Your task to perform on an android device: turn off priority inbox in the gmail app Image 0: 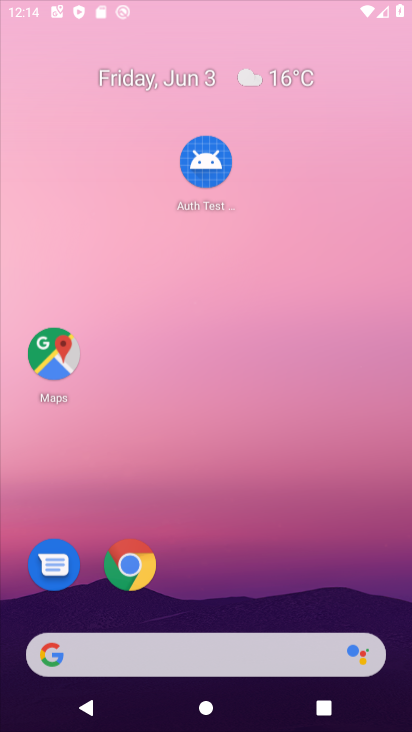
Step 0: drag from (195, 586) to (251, 39)
Your task to perform on an android device: turn off priority inbox in the gmail app Image 1: 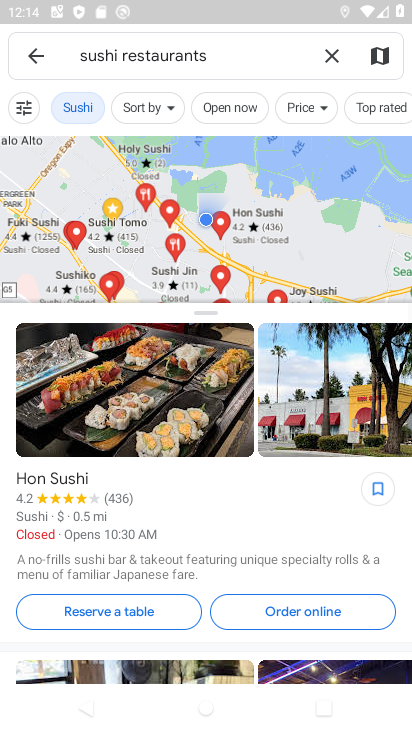
Step 1: press home button
Your task to perform on an android device: turn off priority inbox in the gmail app Image 2: 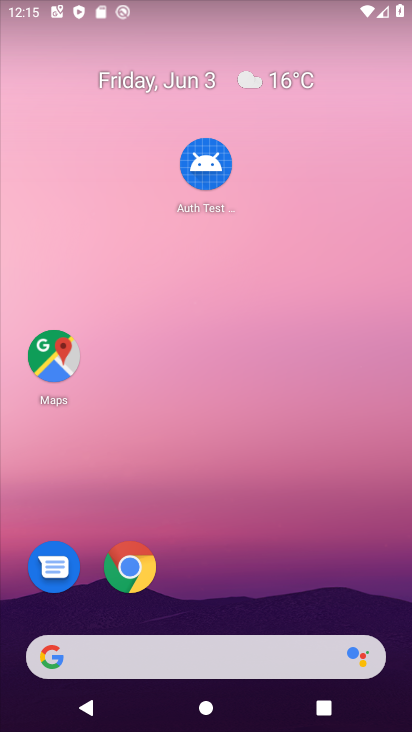
Step 2: drag from (217, 310) to (253, 63)
Your task to perform on an android device: turn off priority inbox in the gmail app Image 3: 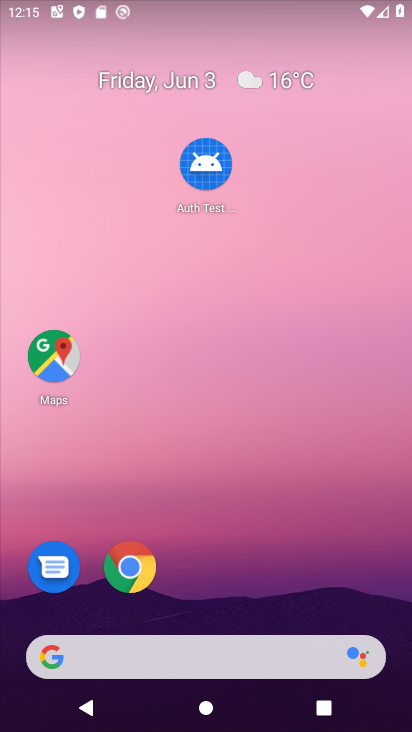
Step 3: drag from (210, 615) to (213, 68)
Your task to perform on an android device: turn off priority inbox in the gmail app Image 4: 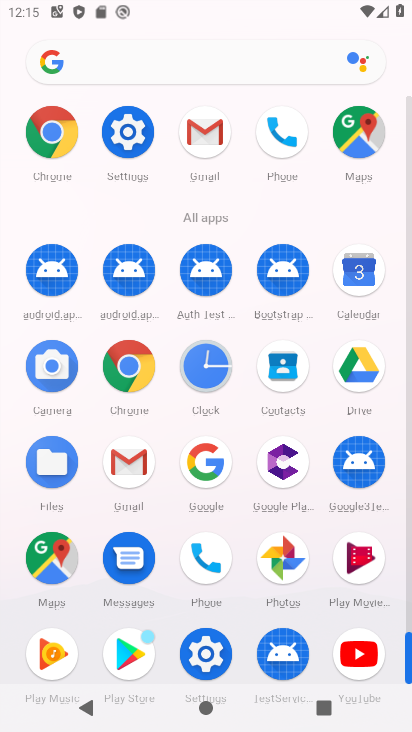
Step 4: click (192, 111)
Your task to perform on an android device: turn off priority inbox in the gmail app Image 5: 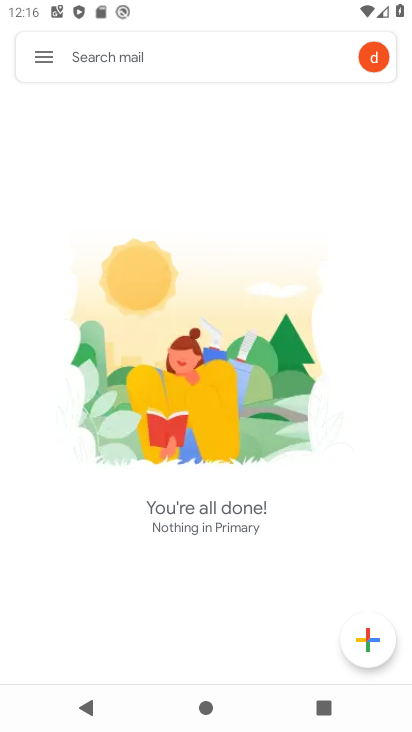
Step 5: click (47, 52)
Your task to perform on an android device: turn off priority inbox in the gmail app Image 6: 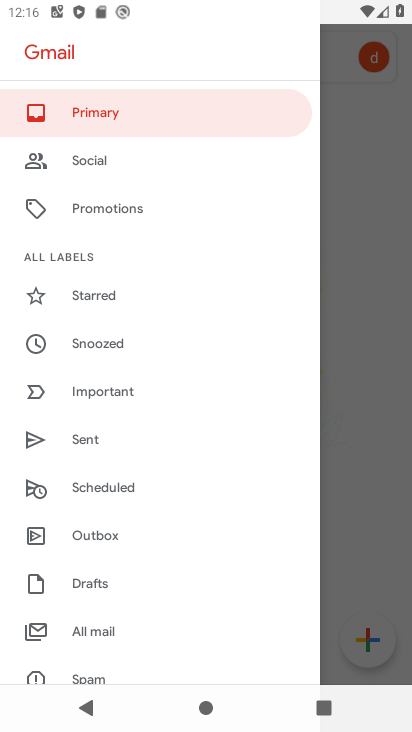
Step 6: drag from (94, 624) to (232, 195)
Your task to perform on an android device: turn off priority inbox in the gmail app Image 7: 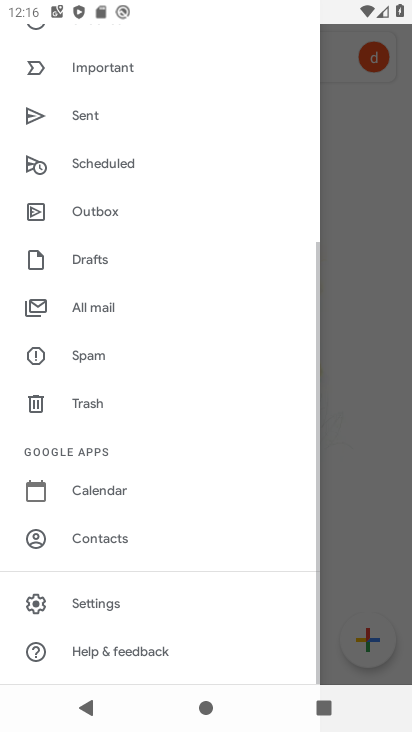
Step 7: click (112, 612)
Your task to perform on an android device: turn off priority inbox in the gmail app Image 8: 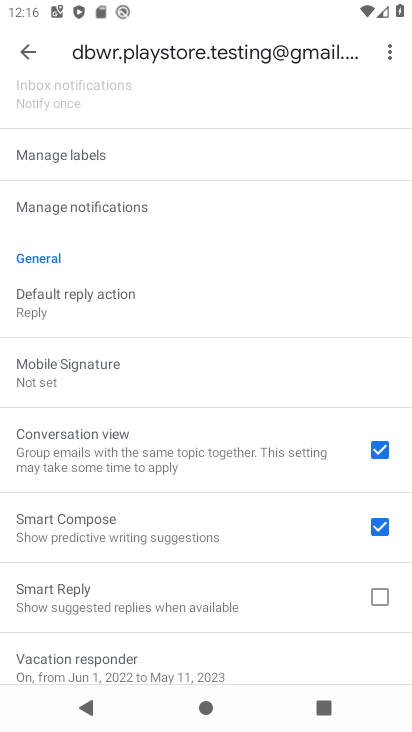
Step 8: drag from (184, 158) to (236, 578)
Your task to perform on an android device: turn off priority inbox in the gmail app Image 9: 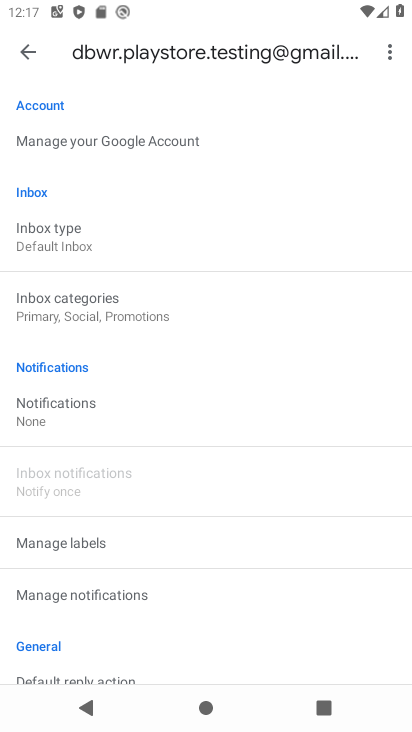
Step 9: click (98, 243)
Your task to perform on an android device: turn off priority inbox in the gmail app Image 10: 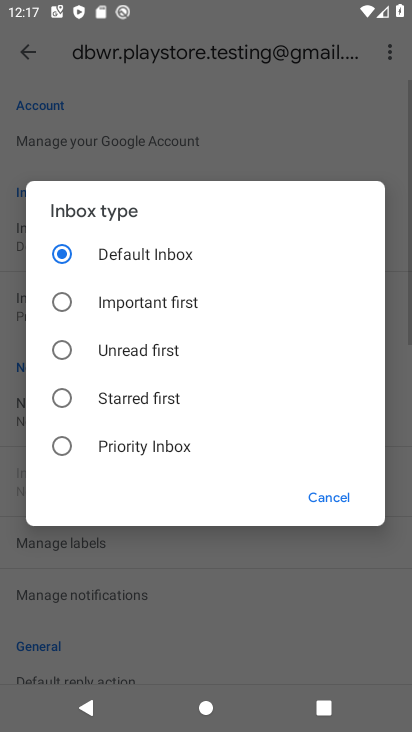
Step 10: click (145, 328)
Your task to perform on an android device: turn off priority inbox in the gmail app Image 11: 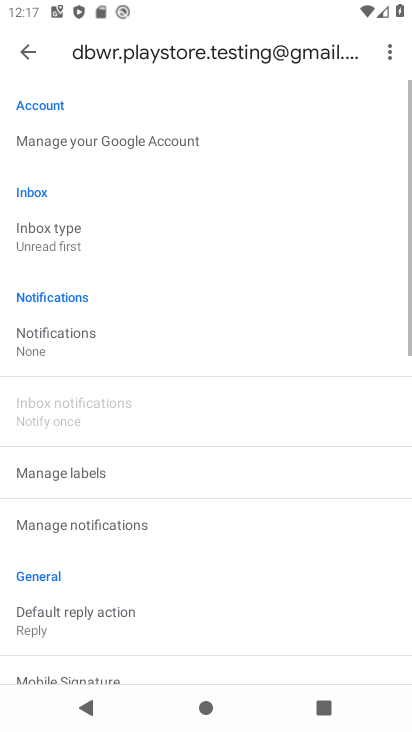
Step 11: task complete